Your task to perform on an android device: turn on sleep mode Image 0: 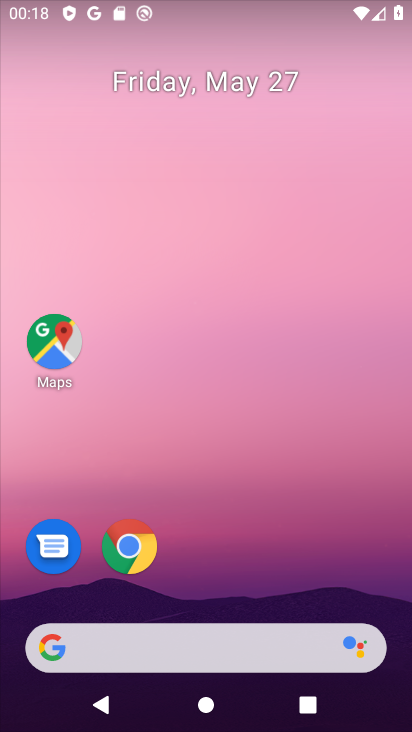
Step 0: drag from (287, 544) to (279, 105)
Your task to perform on an android device: turn on sleep mode Image 1: 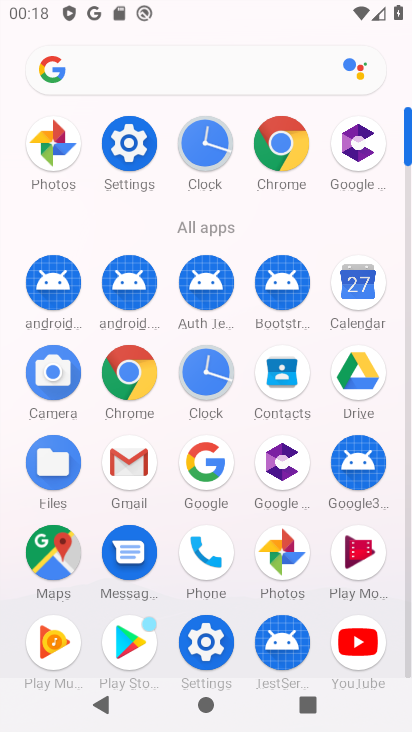
Step 1: click (135, 142)
Your task to perform on an android device: turn on sleep mode Image 2: 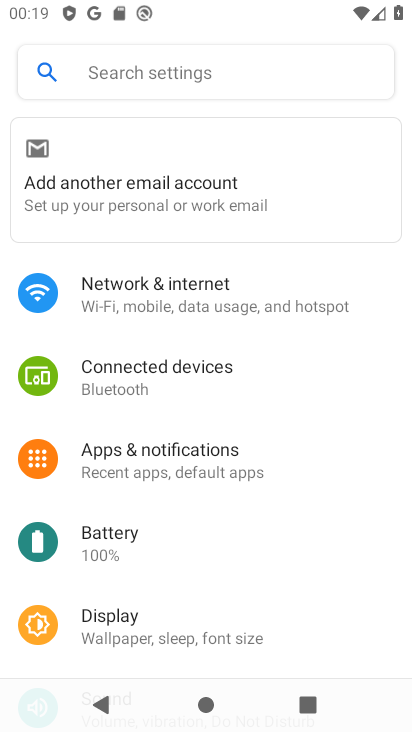
Step 2: click (181, 69)
Your task to perform on an android device: turn on sleep mode Image 3: 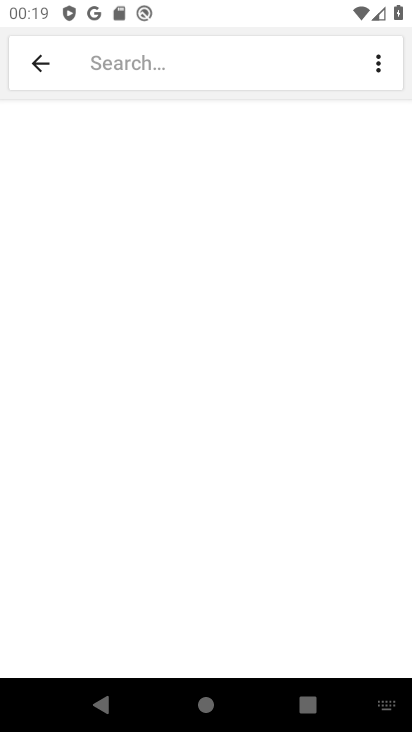
Step 3: type "sleep mode"
Your task to perform on an android device: turn on sleep mode Image 4: 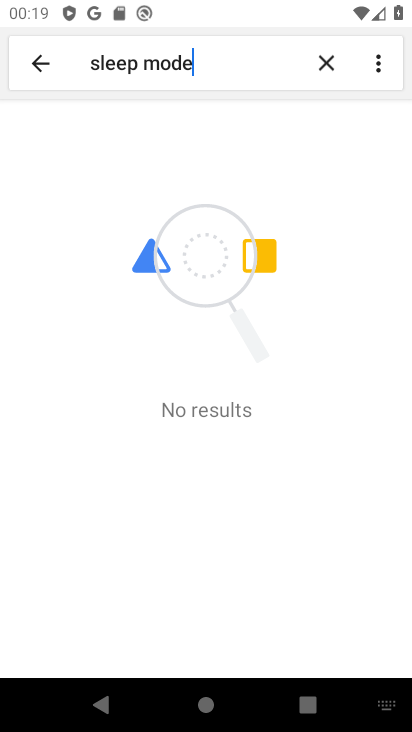
Step 4: task complete